Your task to perform on an android device: What's the weather going to be tomorrow? Image 0: 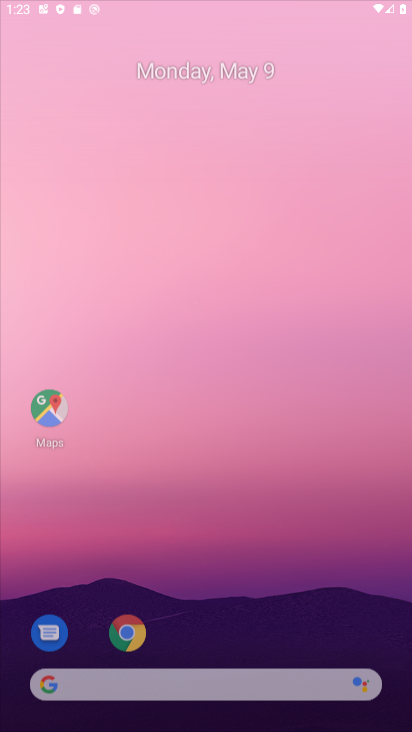
Step 0: drag from (278, 590) to (275, 94)
Your task to perform on an android device: What's the weather going to be tomorrow? Image 1: 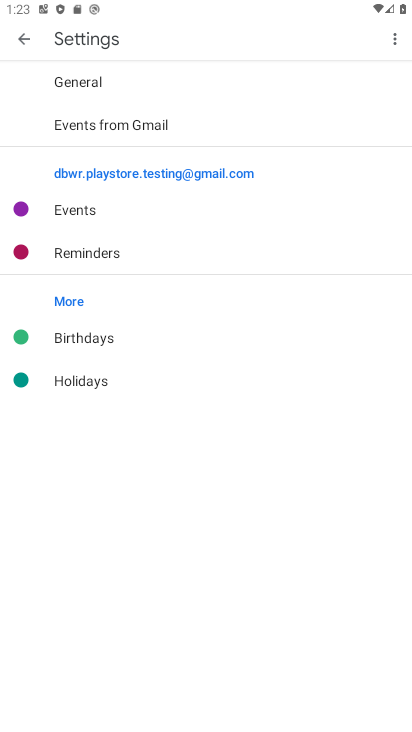
Step 1: press home button
Your task to perform on an android device: What's the weather going to be tomorrow? Image 2: 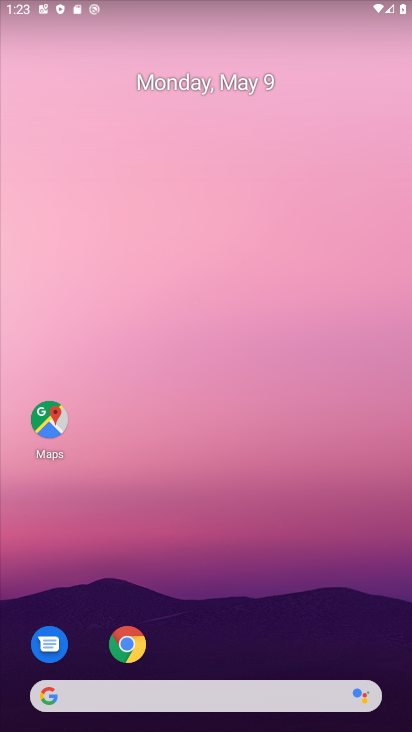
Step 2: drag from (298, 598) to (255, 27)
Your task to perform on an android device: What's the weather going to be tomorrow? Image 3: 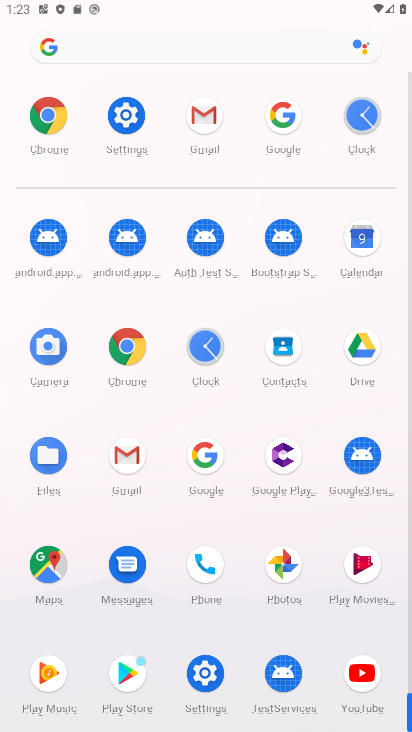
Step 3: click (211, 473)
Your task to perform on an android device: What's the weather going to be tomorrow? Image 4: 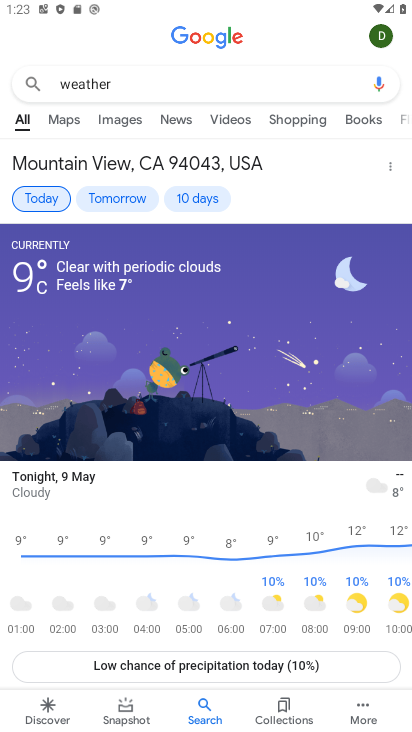
Step 4: click (118, 192)
Your task to perform on an android device: What's the weather going to be tomorrow? Image 5: 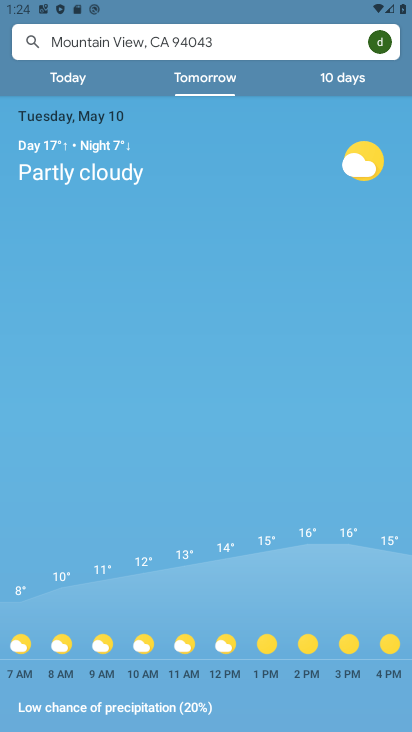
Step 5: task complete